Your task to perform on an android device: turn off notifications settings in the gmail app Image 0: 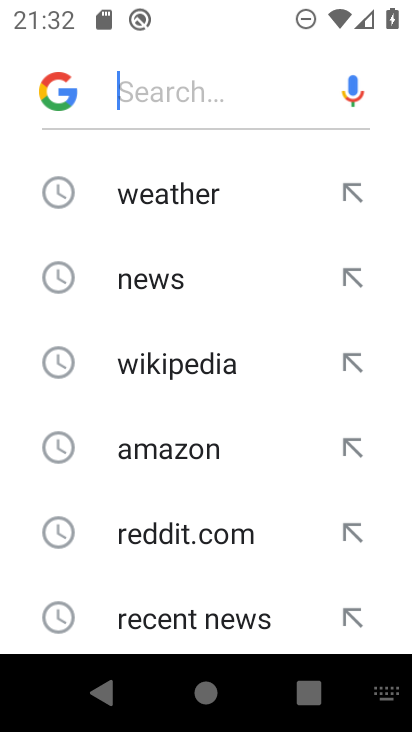
Step 0: press home button
Your task to perform on an android device: turn off notifications settings in the gmail app Image 1: 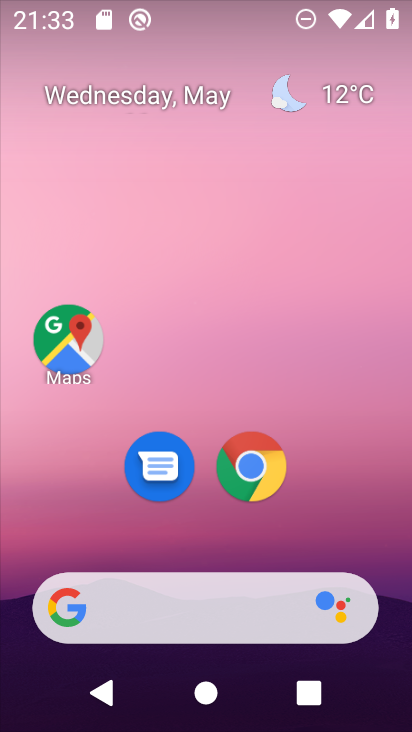
Step 1: drag from (213, 539) to (243, 35)
Your task to perform on an android device: turn off notifications settings in the gmail app Image 2: 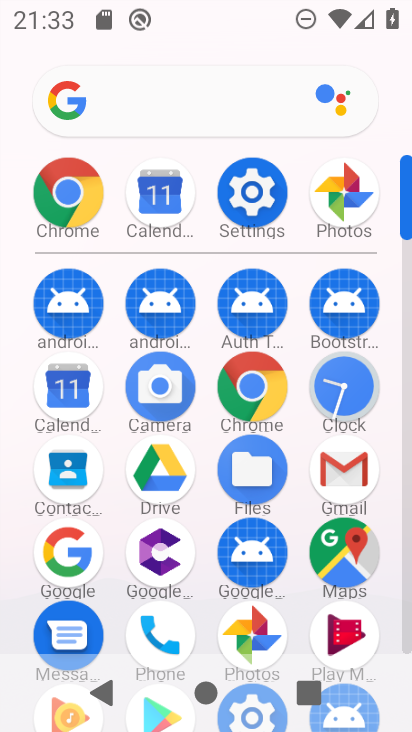
Step 2: click (338, 460)
Your task to perform on an android device: turn off notifications settings in the gmail app Image 3: 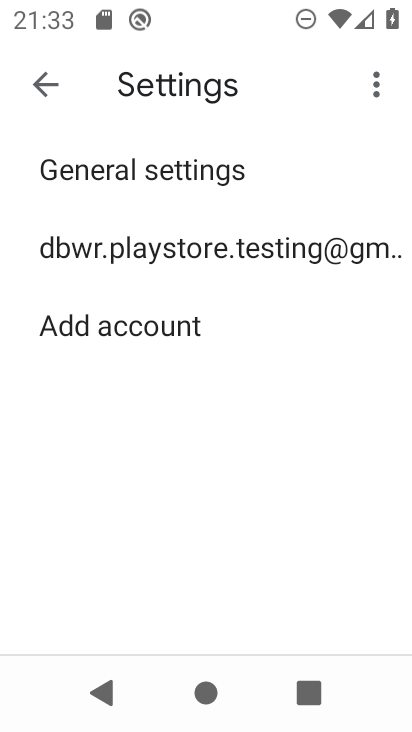
Step 3: click (241, 171)
Your task to perform on an android device: turn off notifications settings in the gmail app Image 4: 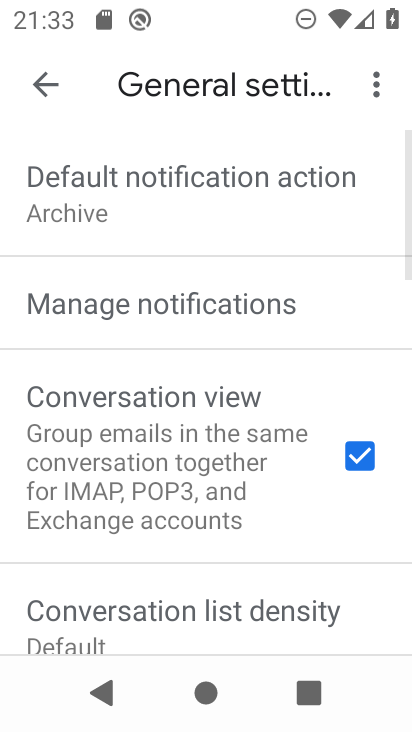
Step 4: click (224, 313)
Your task to perform on an android device: turn off notifications settings in the gmail app Image 5: 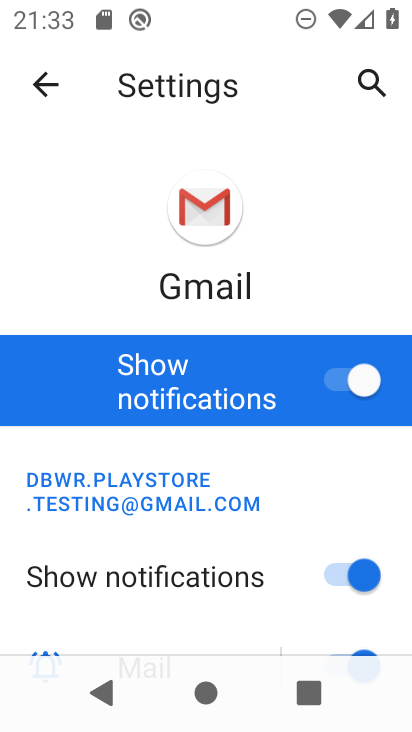
Step 5: click (333, 374)
Your task to perform on an android device: turn off notifications settings in the gmail app Image 6: 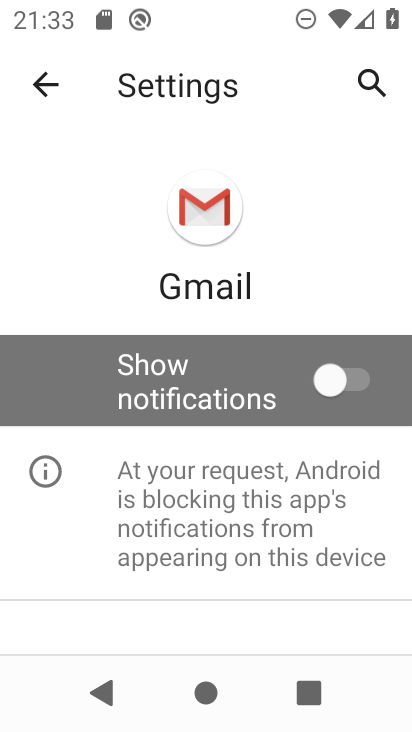
Step 6: task complete